Your task to perform on an android device: change notifications settings Image 0: 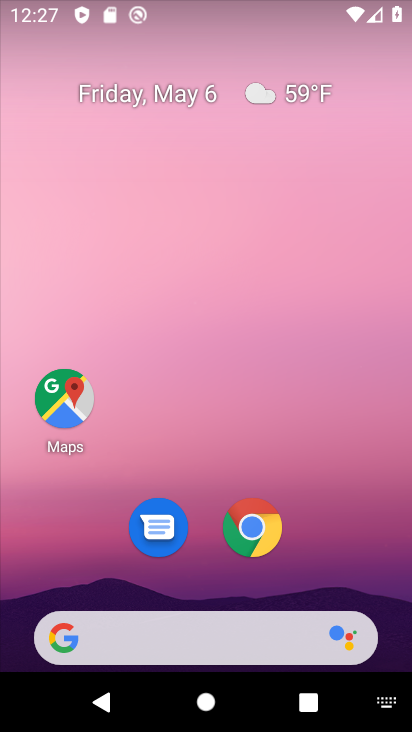
Step 0: drag from (178, 482) to (201, 71)
Your task to perform on an android device: change notifications settings Image 1: 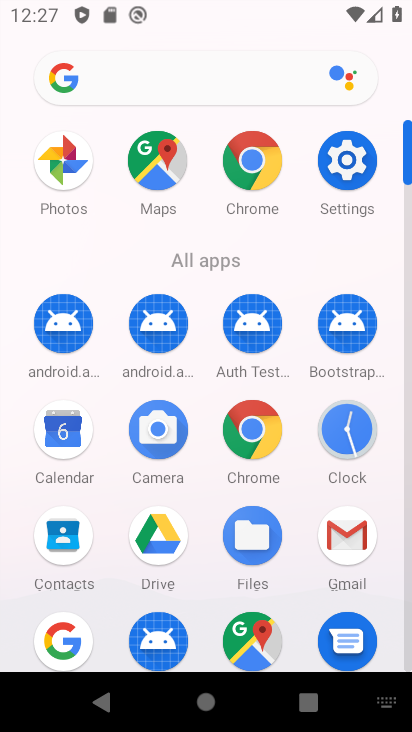
Step 1: click (345, 158)
Your task to perform on an android device: change notifications settings Image 2: 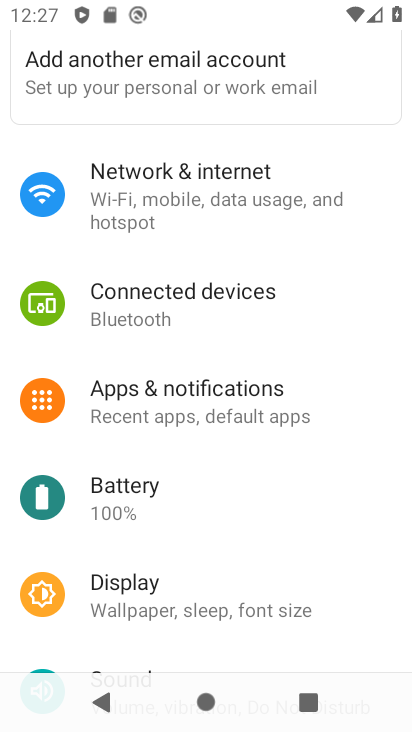
Step 2: drag from (186, 426) to (250, 326)
Your task to perform on an android device: change notifications settings Image 3: 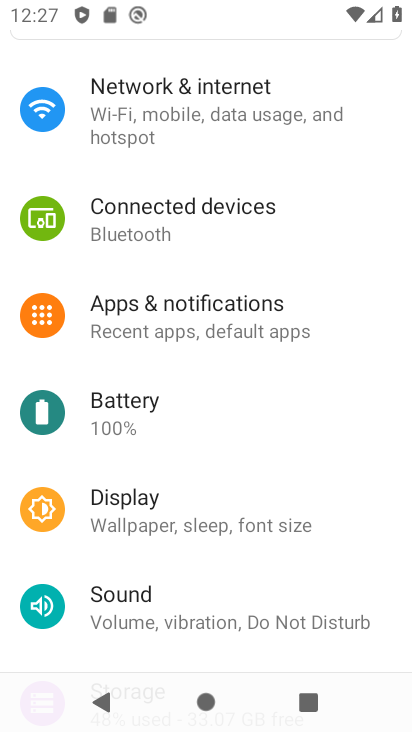
Step 3: click (255, 297)
Your task to perform on an android device: change notifications settings Image 4: 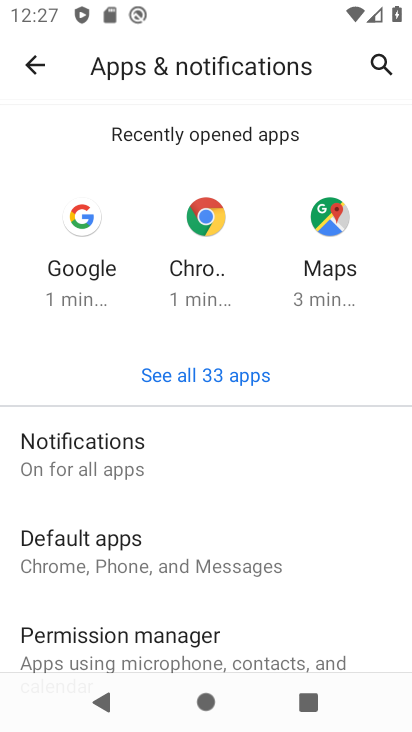
Step 4: click (95, 440)
Your task to perform on an android device: change notifications settings Image 5: 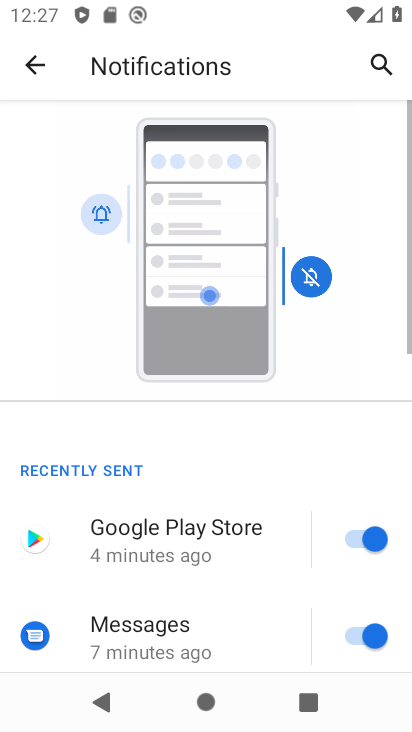
Step 5: drag from (192, 580) to (239, 416)
Your task to perform on an android device: change notifications settings Image 6: 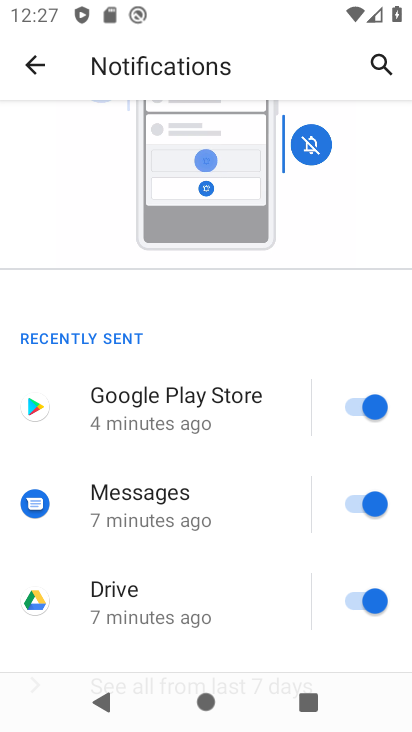
Step 6: drag from (191, 579) to (254, 374)
Your task to perform on an android device: change notifications settings Image 7: 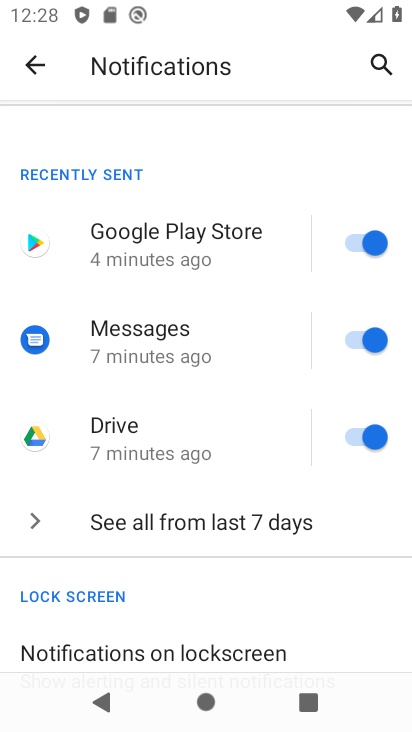
Step 7: drag from (173, 595) to (251, 379)
Your task to perform on an android device: change notifications settings Image 8: 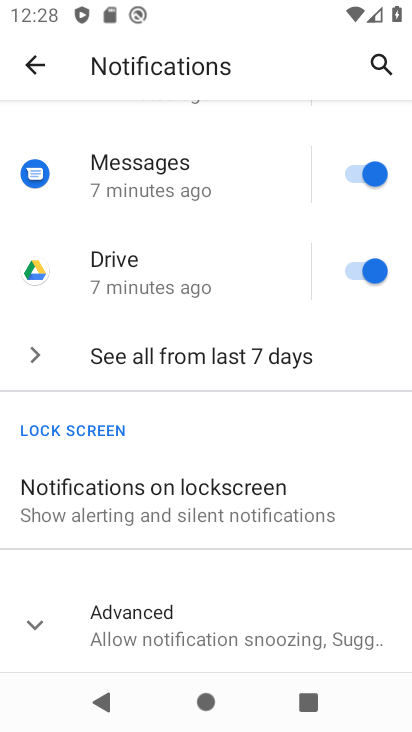
Step 8: click (194, 630)
Your task to perform on an android device: change notifications settings Image 9: 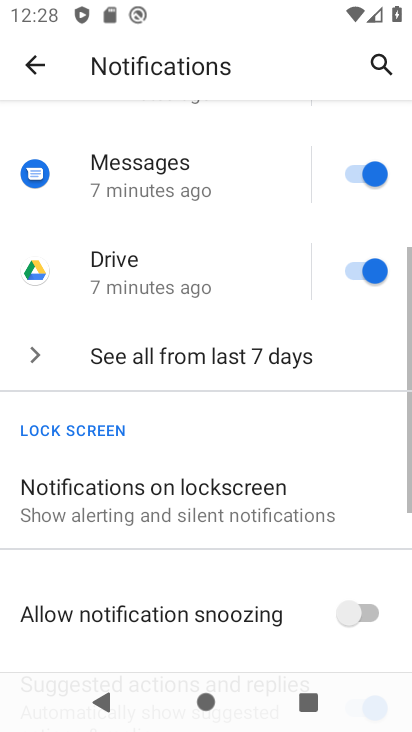
Step 9: drag from (194, 630) to (245, 499)
Your task to perform on an android device: change notifications settings Image 10: 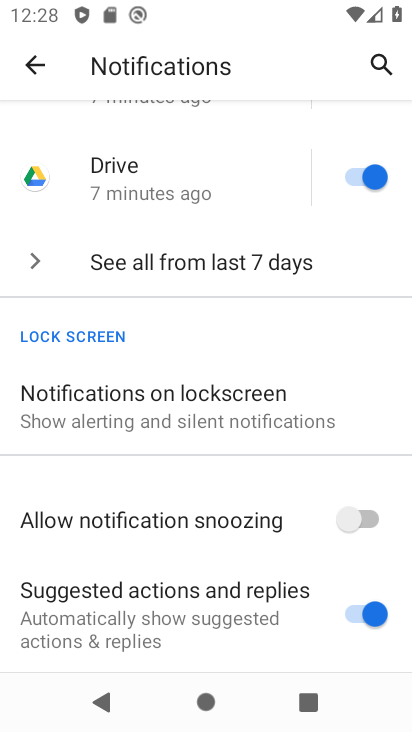
Step 10: drag from (205, 605) to (235, 504)
Your task to perform on an android device: change notifications settings Image 11: 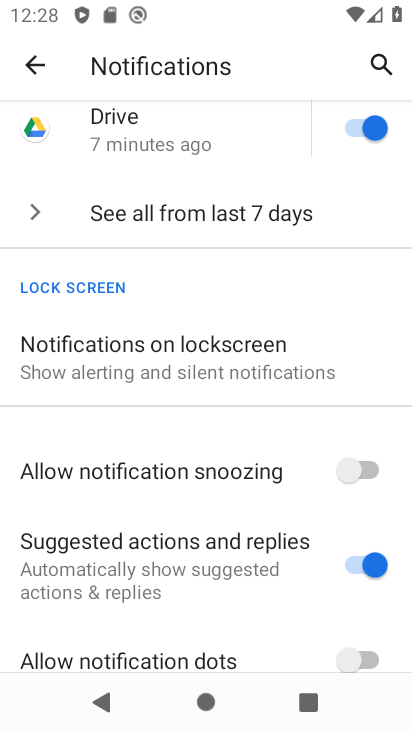
Step 11: drag from (145, 529) to (208, 398)
Your task to perform on an android device: change notifications settings Image 12: 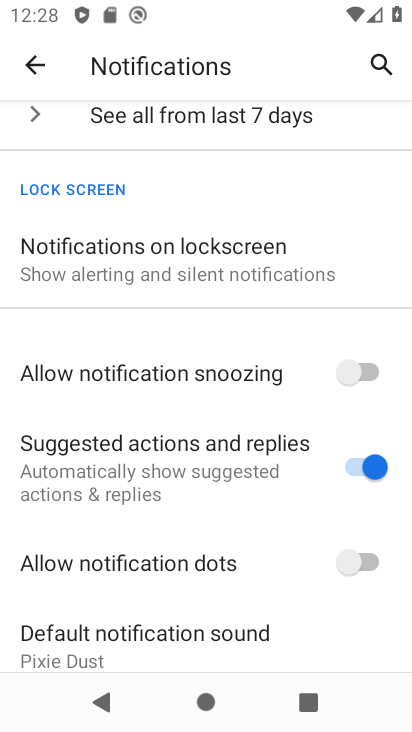
Step 12: click (354, 563)
Your task to perform on an android device: change notifications settings Image 13: 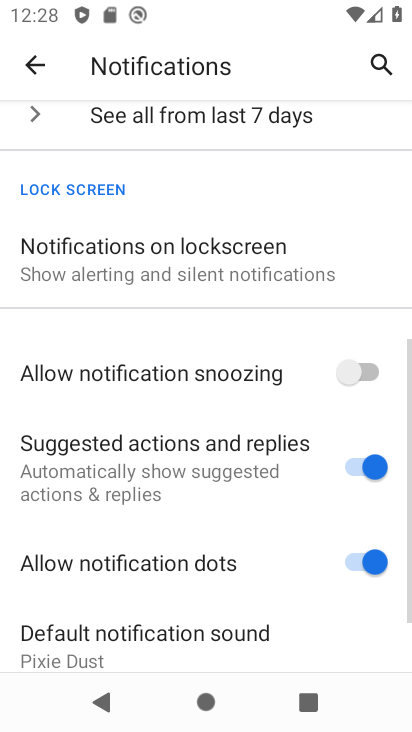
Step 13: task complete